Your task to perform on an android device: turn off data saver in the chrome app Image 0: 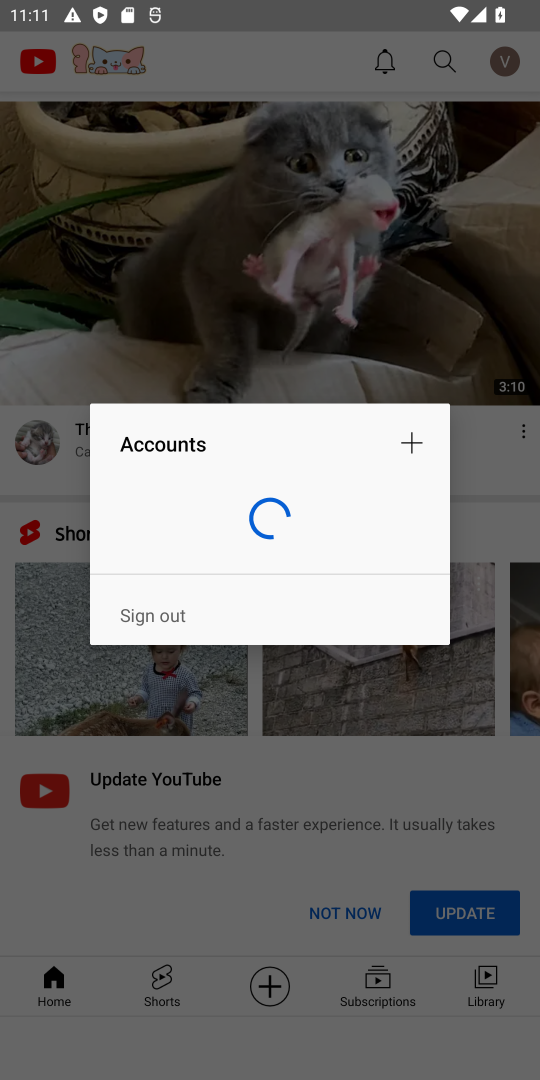
Step 0: press home button
Your task to perform on an android device: turn off data saver in the chrome app Image 1: 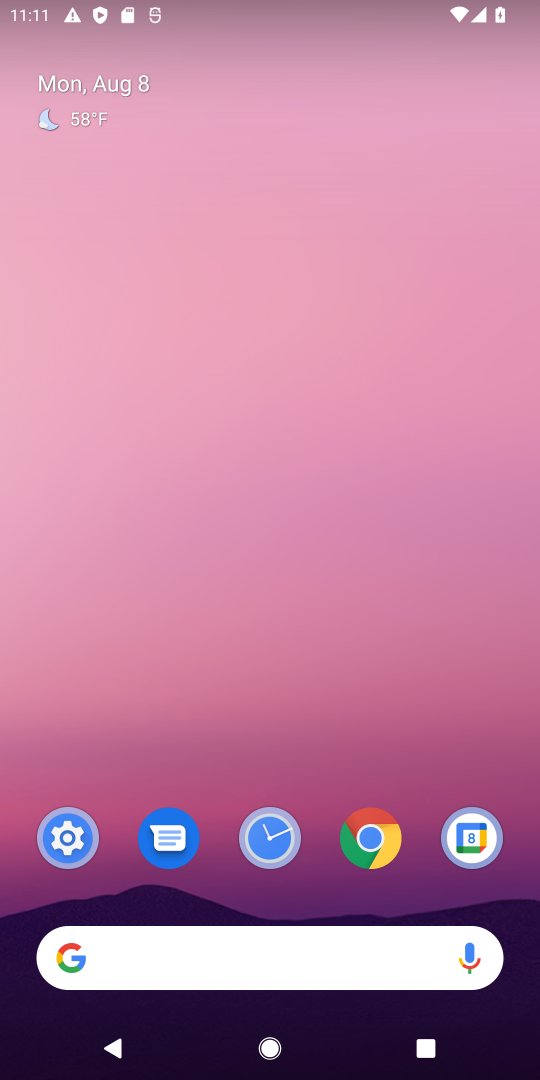
Step 1: click (366, 849)
Your task to perform on an android device: turn off data saver in the chrome app Image 2: 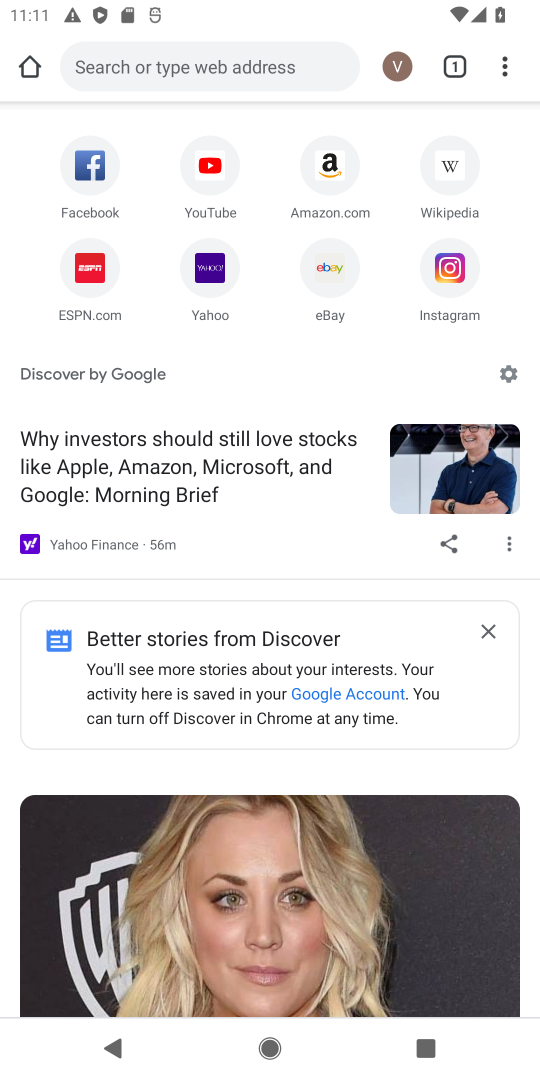
Step 2: drag from (498, 70) to (315, 663)
Your task to perform on an android device: turn off data saver in the chrome app Image 3: 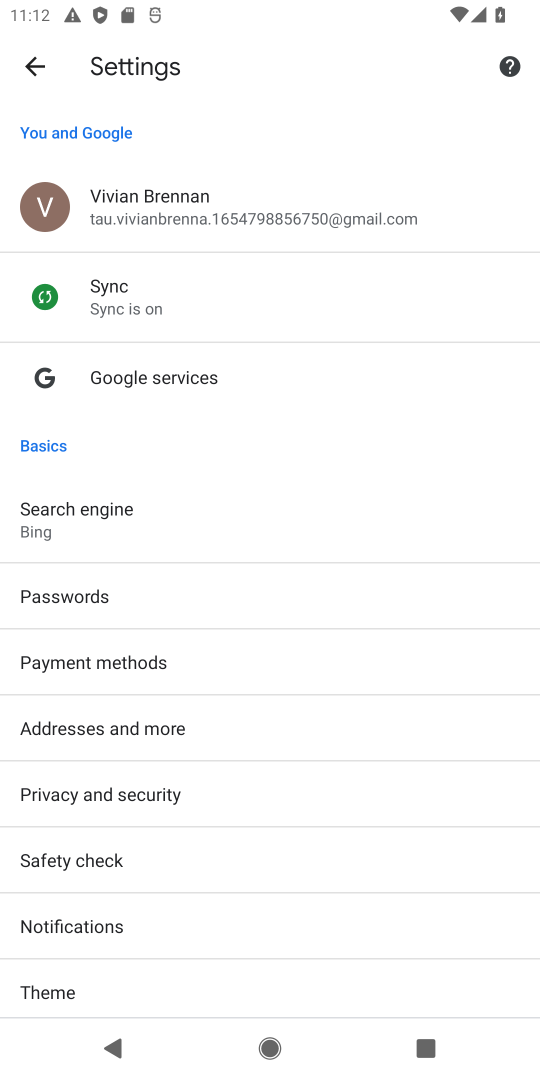
Step 3: drag from (230, 983) to (264, 370)
Your task to perform on an android device: turn off data saver in the chrome app Image 4: 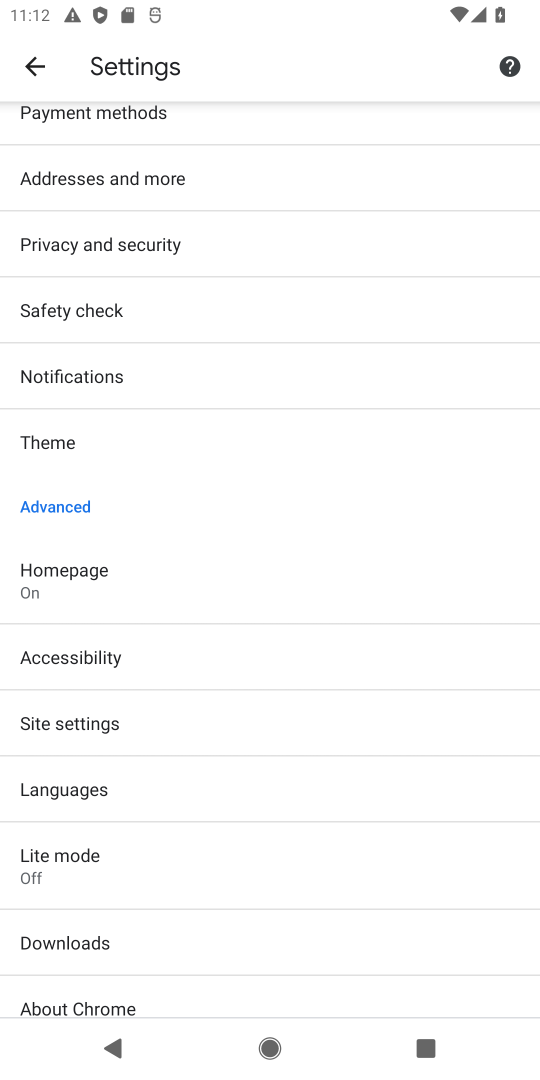
Step 4: click (41, 871)
Your task to perform on an android device: turn off data saver in the chrome app Image 5: 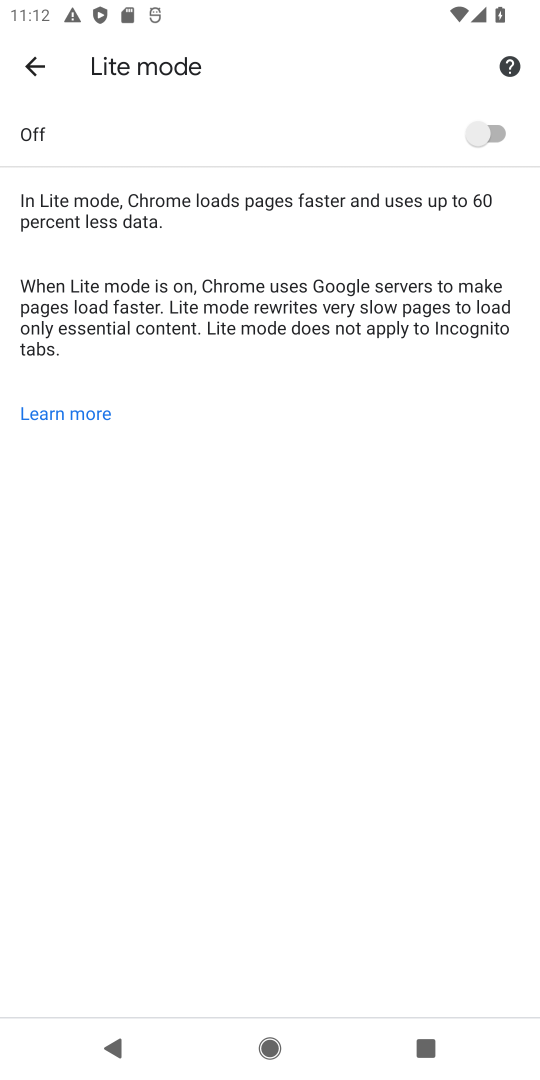
Step 5: task complete